Your task to perform on an android device: Play the new Justin Bieber video on YouTube Image 0: 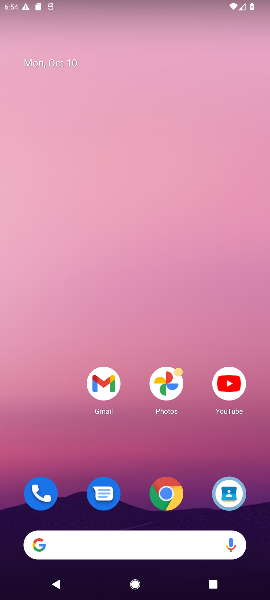
Step 0: drag from (129, 411) to (136, 150)
Your task to perform on an android device: Play the new Justin Bieber video on YouTube Image 1: 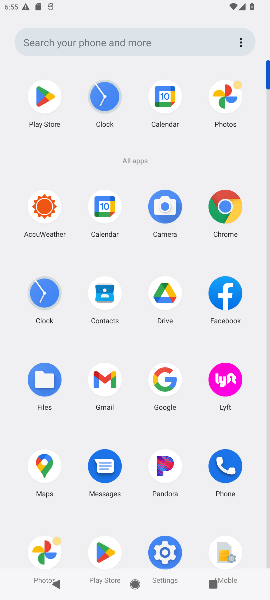
Step 1: drag from (170, 523) to (170, 318)
Your task to perform on an android device: Play the new Justin Bieber video on YouTube Image 2: 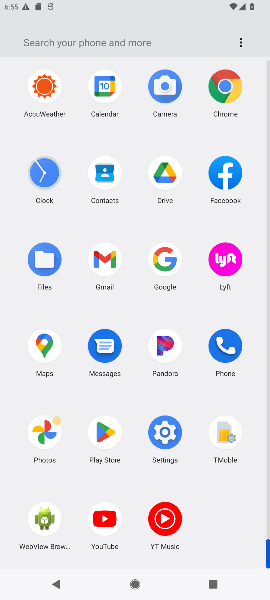
Step 2: click (102, 516)
Your task to perform on an android device: Play the new Justin Bieber video on YouTube Image 3: 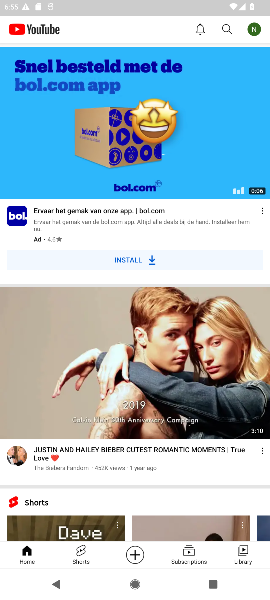
Step 3: click (226, 25)
Your task to perform on an android device: Play the new Justin Bieber video on YouTube Image 4: 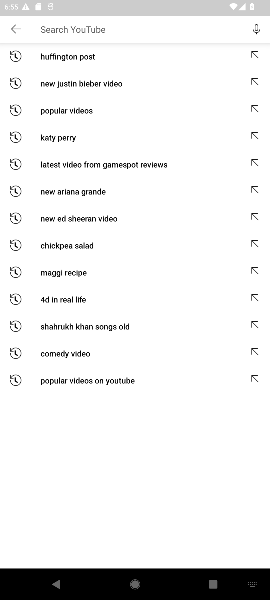
Step 4: type "Play the new Justin Bieber video "
Your task to perform on an android device: Play the new Justin Bieber video on YouTube Image 5: 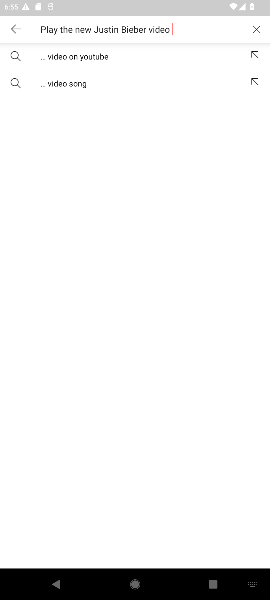
Step 5: click (99, 54)
Your task to perform on an android device: Play the new Justin Bieber video on YouTube Image 6: 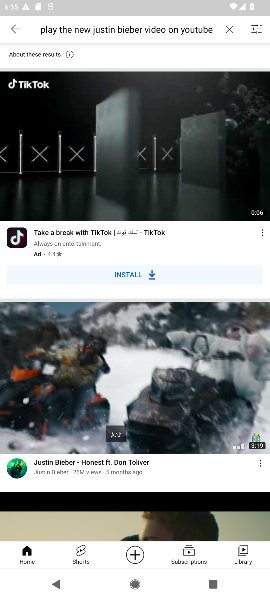
Step 6: task complete